Your task to perform on an android device: set default search engine in the chrome app Image 0: 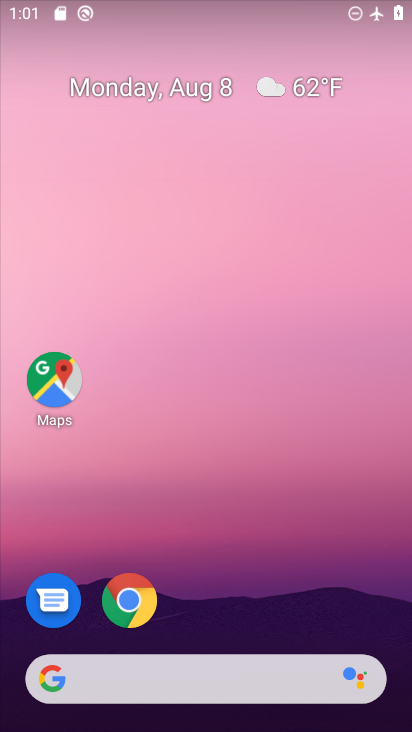
Step 0: click (154, 608)
Your task to perform on an android device: set default search engine in the chrome app Image 1: 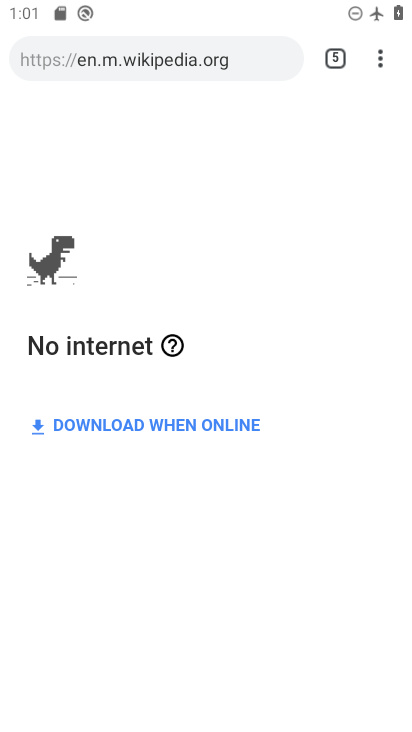
Step 1: click (373, 63)
Your task to perform on an android device: set default search engine in the chrome app Image 2: 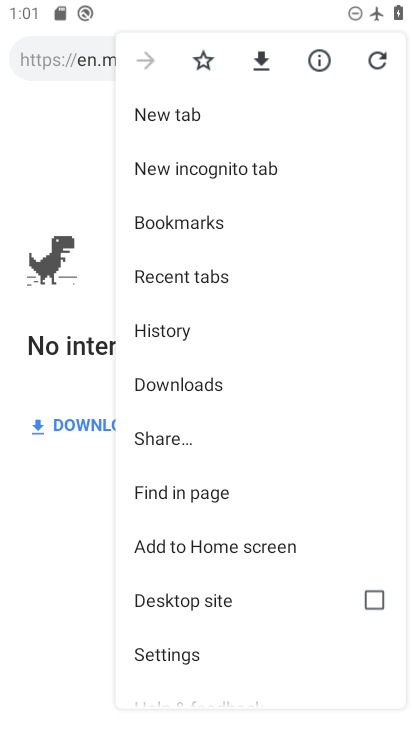
Step 2: click (196, 643)
Your task to perform on an android device: set default search engine in the chrome app Image 3: 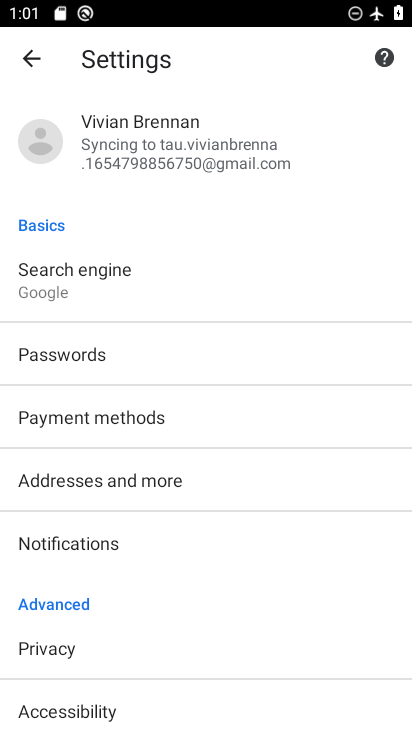
Step 3: click (75, 285)
Your task to perform on an android device: set default search engine in the chrome app Image 4: 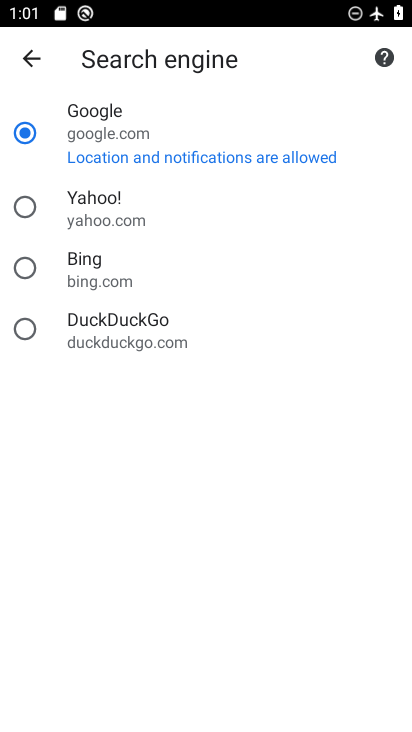
Step 4: task complete